Your task to perform on an android device: Open ESPN.com Image 0: 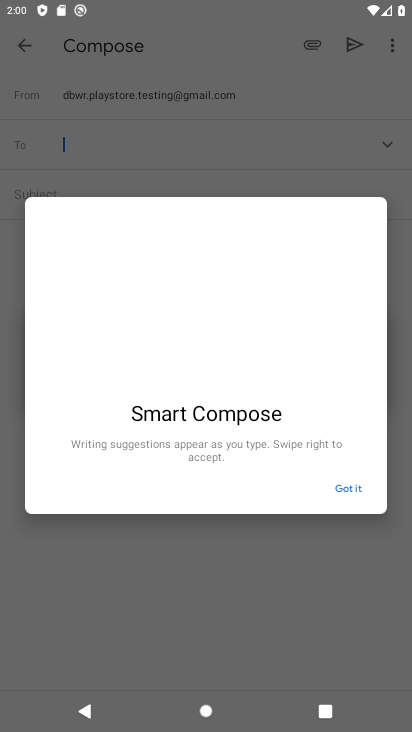
Step 0: press home button
Your task to perform on an android device: Open ESPN.com Image 1: 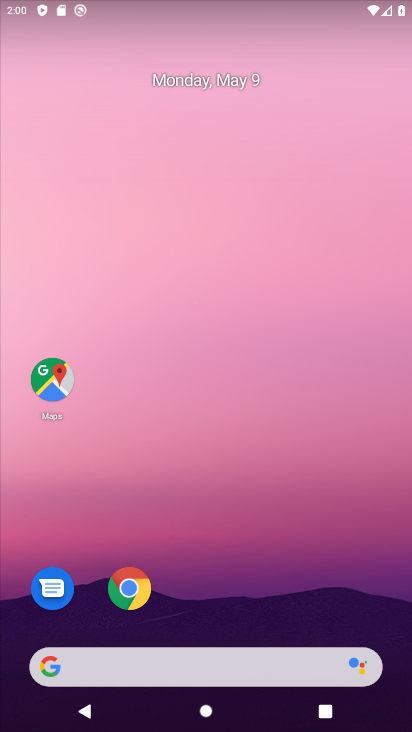
Step 1: drag from (341, 622) to (317, 104)
Your task to perform on an android device: Open ESPN.com Image 2: 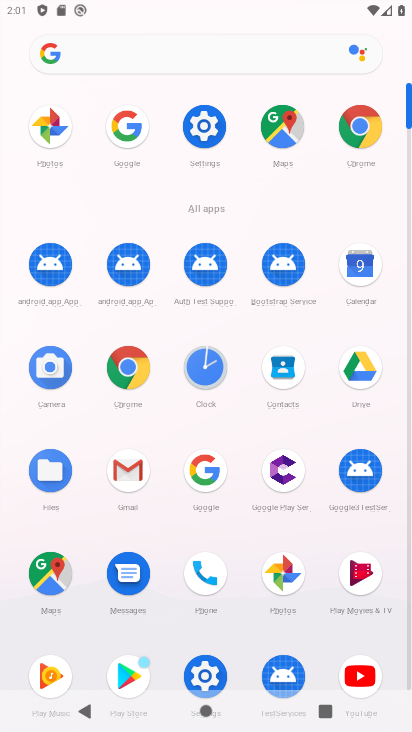
Step 2: click (132, 367)
Your task to perform on an android device: Open ESPN.com Image 3: 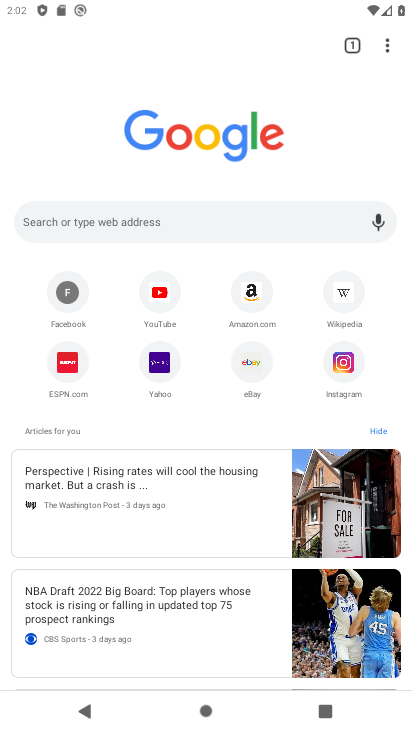
Step 3: click (62, 349)
Your task to perform on an android device: Open ESPN.com Image 4: 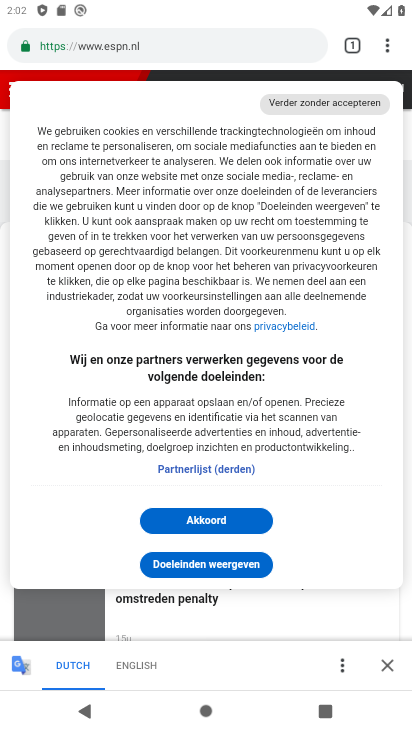
Step 4: task complete